Your task to perform on an android device: open the mobile data screen to see how much data has been used Image 0: 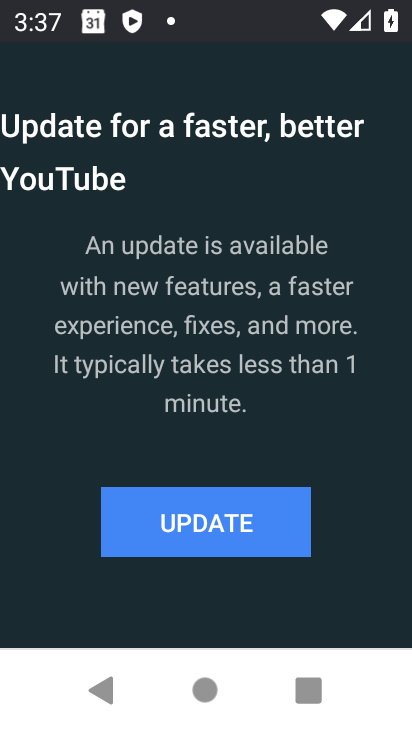
Step 0: press home button
Your task to perform on an android device: open the mobile data screen to see how much data has been used Image 1: 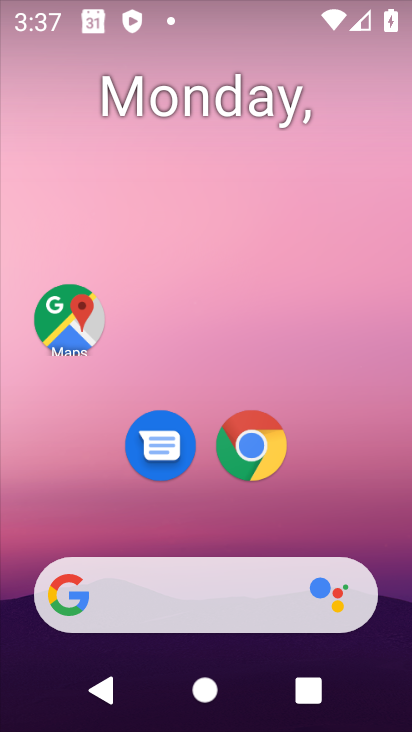
Step 1: drag from (293, 523) to (335, 196)
Your task to perform on an android device: open the mobile data screen to see how much data has been used Image 2: 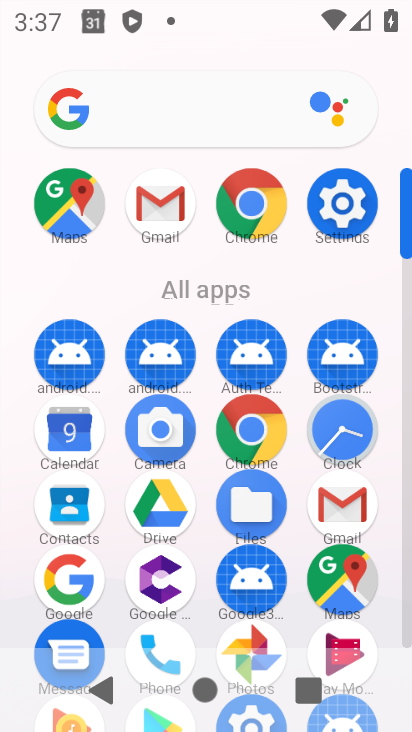
Step 2: drag from (208, 18) to (147, 698)
Your task to perform on an android device: open the mobile data screen to see how much data has been used Image 3: 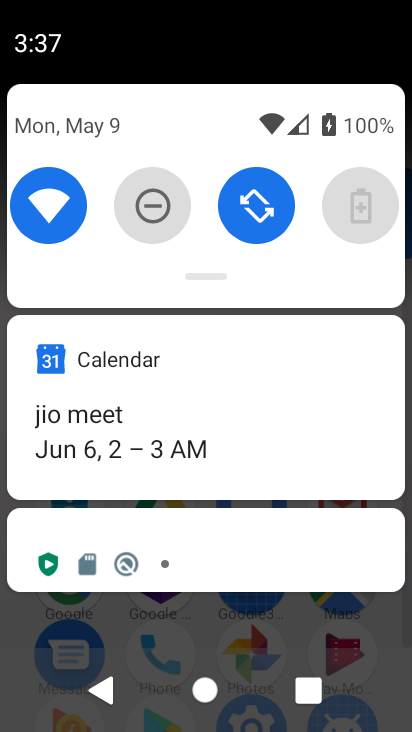
Step 3: drag from (218, 241) to (173, 729)
Your task to perform on an android device: open the mobile data screen to see how much data has been used Image 4: 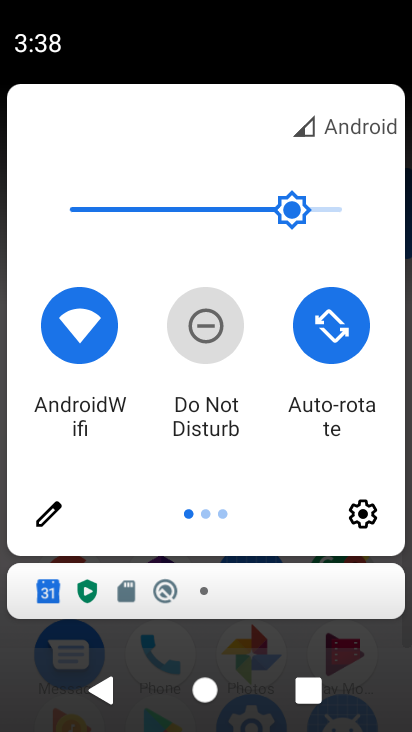
Step 4: drag from (375, 295) to (33, 380)
Your task to perform on an android device: open the mobile data screen to see how much data has been used Image 5: 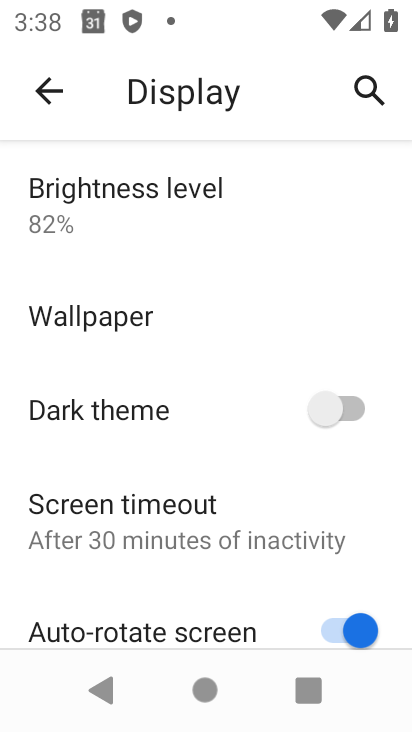
Step 5: press home button
Your task to perform on an android device: open the mobile data screen to see how much data has been used Image 6: 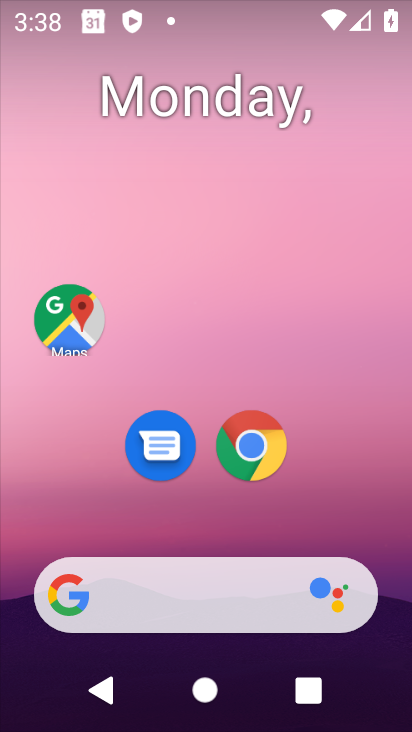
Step 6: drag from (280, 4) to (261, 716)
Your task to perform on an android device: open the mobile data screen to see how much data has been used Image 7: 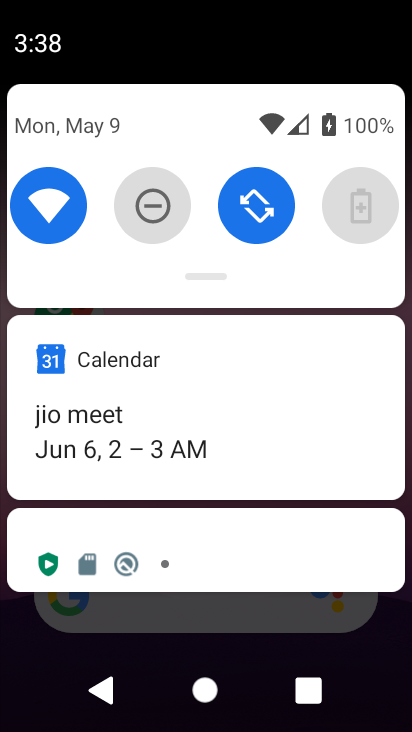
Step 7: drag from (208, 272) to (206, 683)
Your task to perform on an android device: open the mobile data screen to see how much data has been used Image 8: 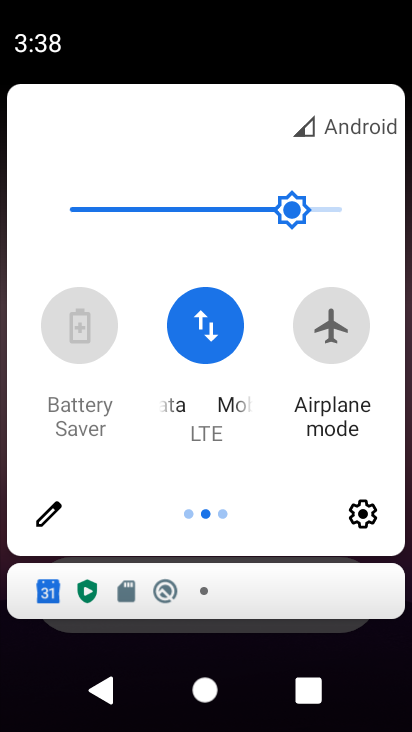
Step 8: drag from (381, 319) to (7, 495)
Your task to perform on an android device: open the mobile data screen to see how much data has been used Image 9: 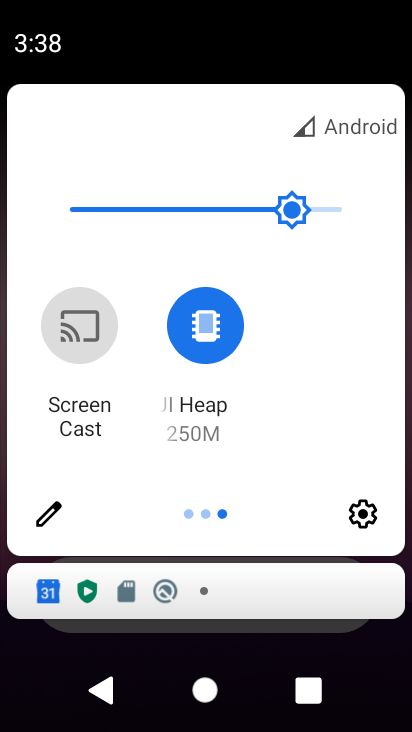
Step 9: drag from (14, 396) to (380, 429)
Your task to perform on an android device: open the mobile data screen to see how much data has been used Image 10: 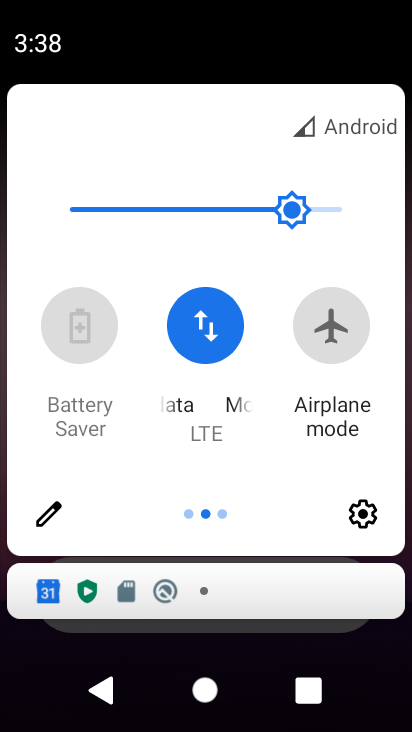
Step 10: click (195, 336)
Your task to perform on an android device: open the mobile data screen to see how much data has been used Image 11: 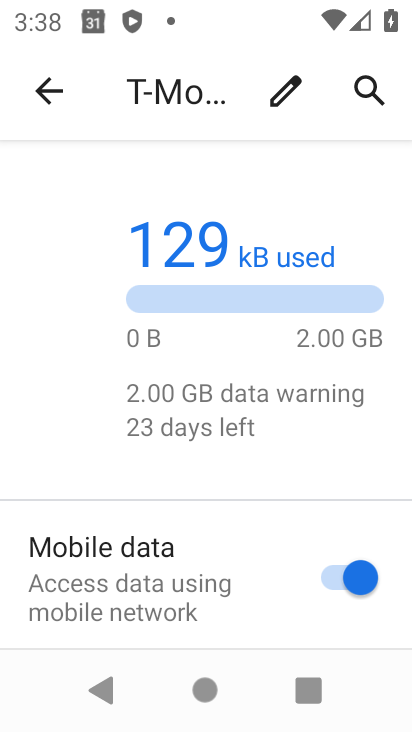
Step 11: task complete